Your task to perform on an android device: turn on location history Image 0: 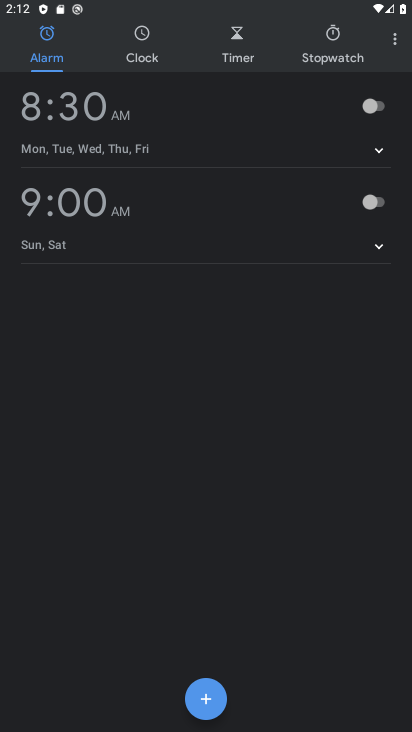
Step 0: press home button
Your task to perform on an android device: turn on location history Image 1: 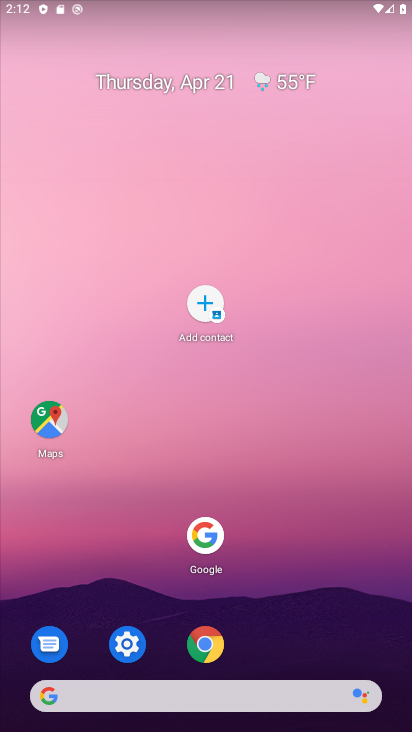
Step 1: drag from (242, 506) to (160, 112)
Your task to perform on an android device: turn on location history Image 2: 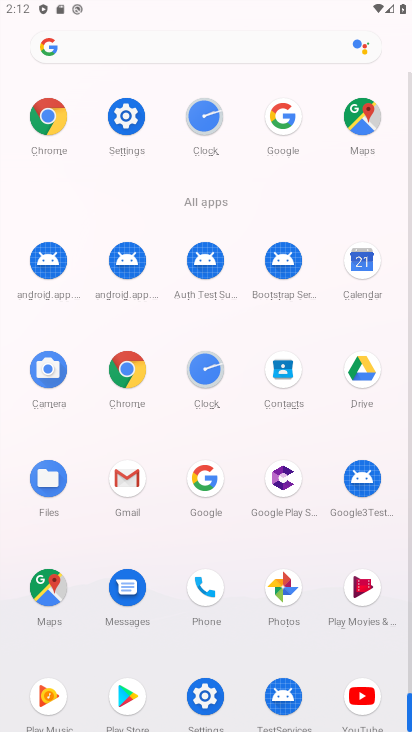
Step 2: click (48, 594)
Your task to perform on an android device: turn on location history Image 3: 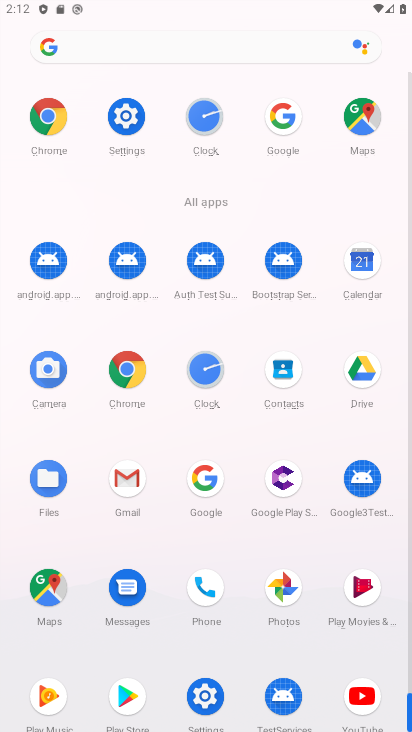
Step 3: click (48, 594)
Your task to perform on an android device: turn on location history Image 4: 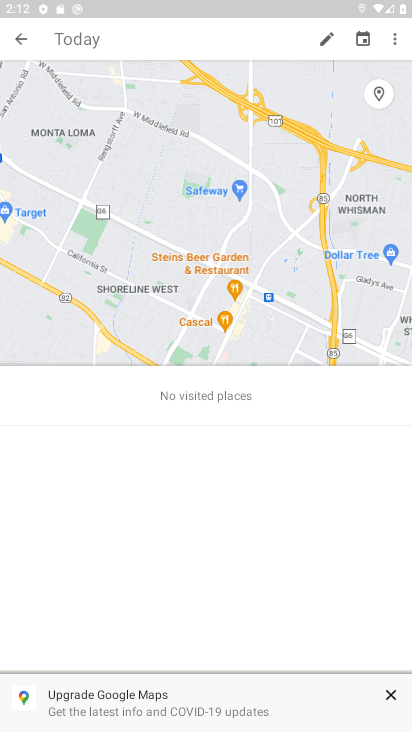
Step 4: click (18, 36)
Your task to perform on an android device: turn on location history Image 5: 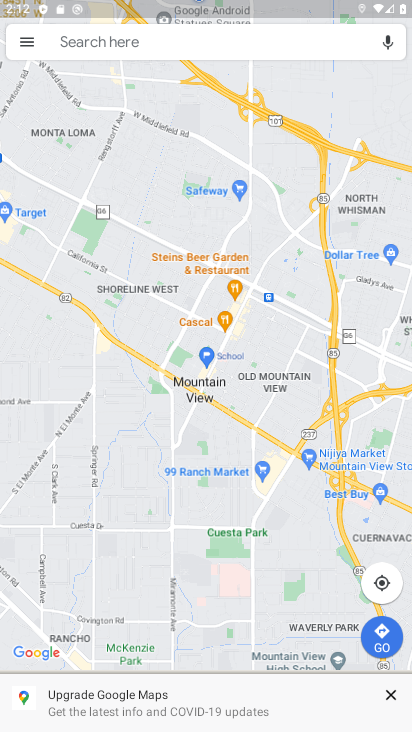
Step 5: click (23, 38)
Your task to perform on an android device: turn on location history Image 6: 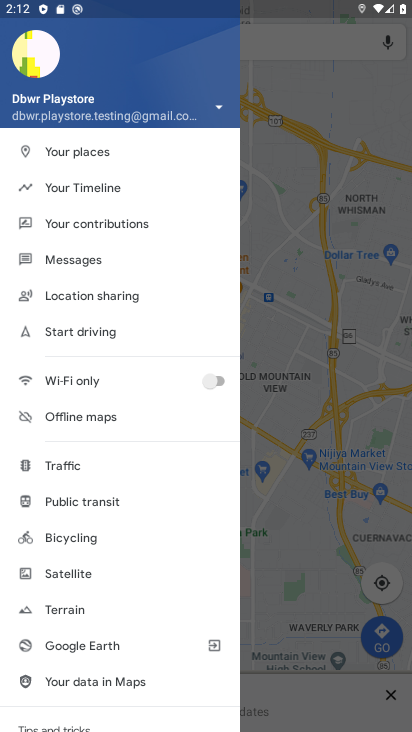
Step 6: click (100, 188)
Your task to perform on an android device: turn on location history Image 7: 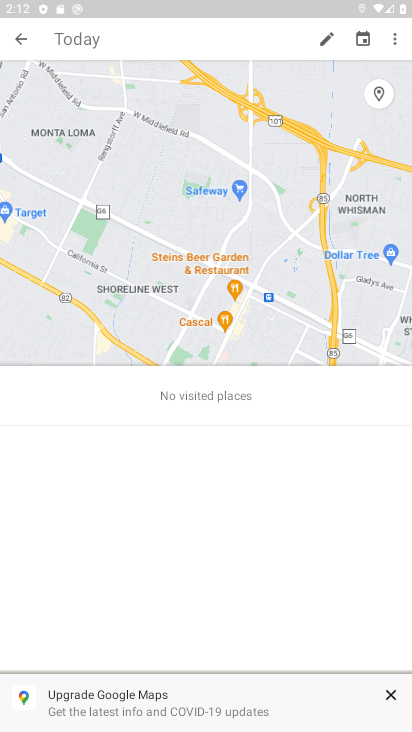
Step 7: click (392, 39)
Your task to perform on an android device: turn on location history Image 8: 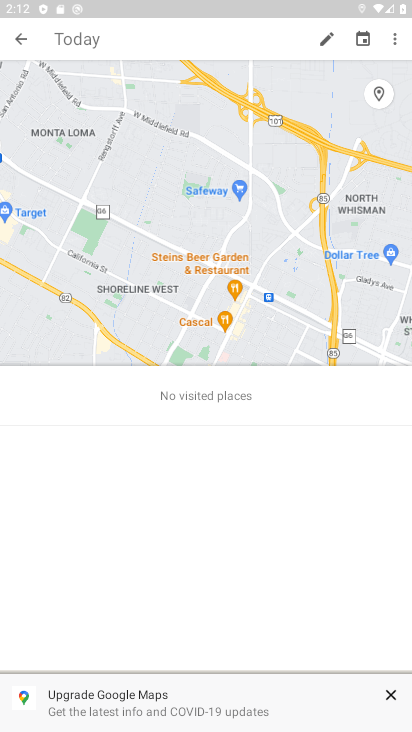
Step 8: click (392, 39)
Your task to perform on an android device: turn on location history Image 9: 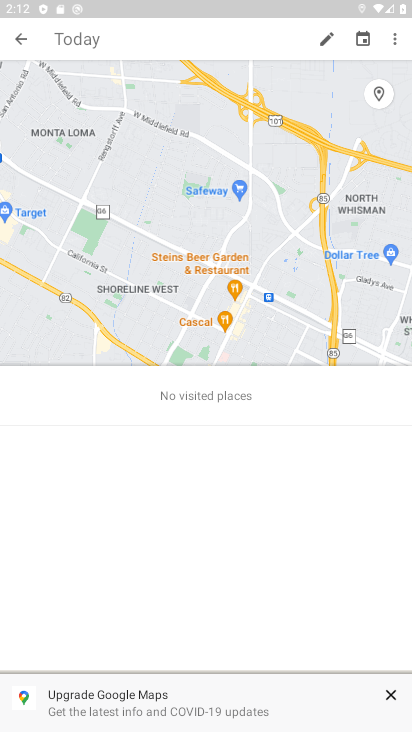
Step 9: drag from (391, 34) to (360, 218)
Your task to perform on an android device: turn on location history Image 10: 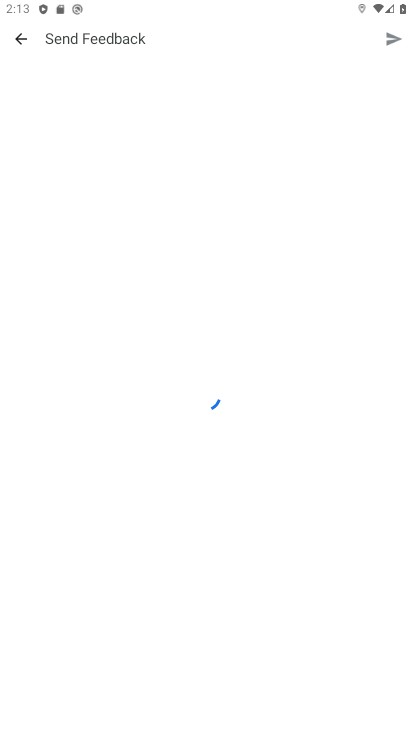
Step 10: click (393, 39)
Your task to perform on an android device: turn on location history Image 11: 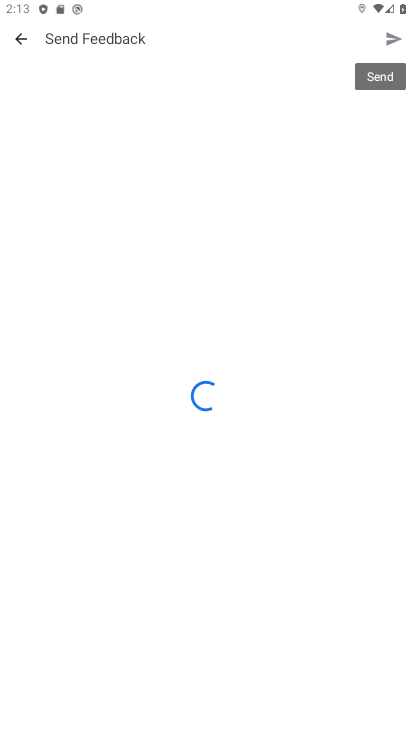
Step 11: click (16, 32)
Your task to perform on an android device: turn on location history Image 12: 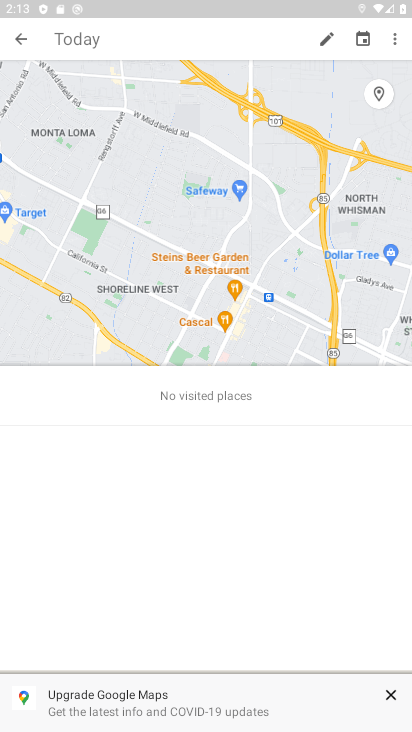
Step 12: drag from (391, 42) to (376, 315)
Your task to perform on an android device: turn on location history Image 13: 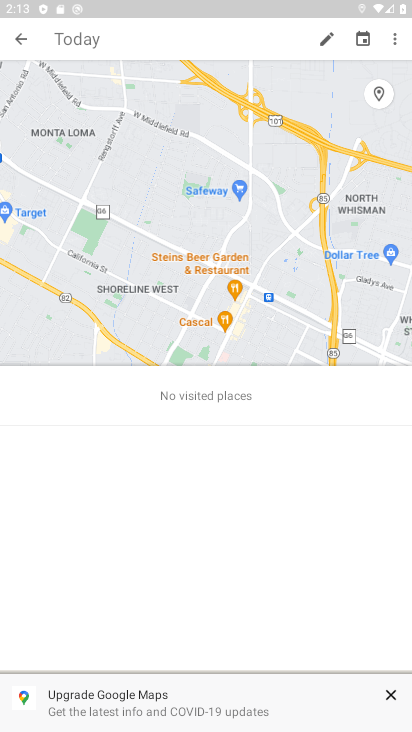
Step 13: click (393, 37)
Your task to perform on an android device: turn on location history Image 14: 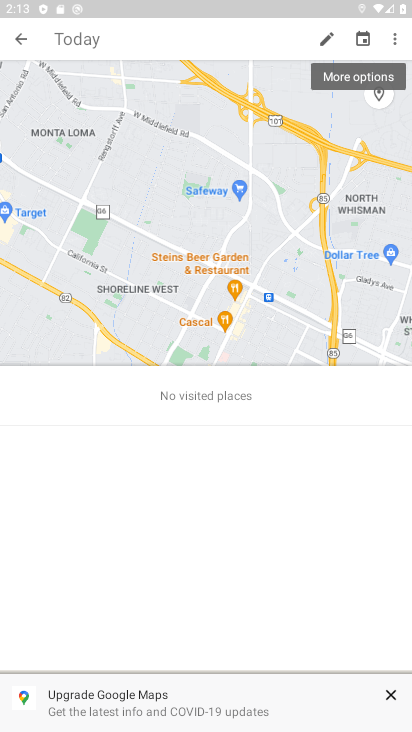
Step 14: click (391, 37)
Your task to perform on an android device: turn on location history Image 15: 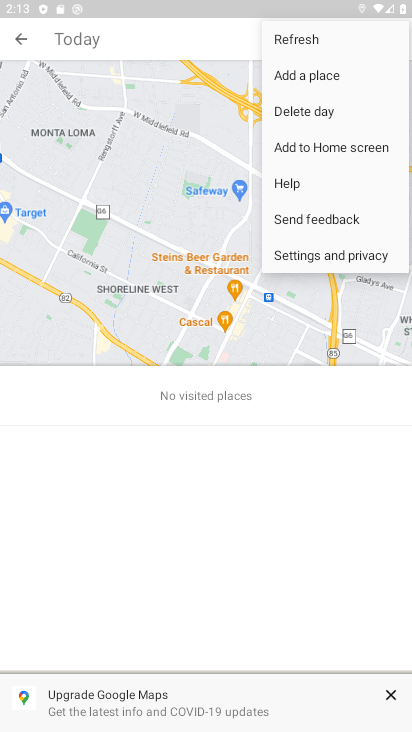
Step 15: click (328, 251)
Your task to perform on an android device: turn on location history Image 16: 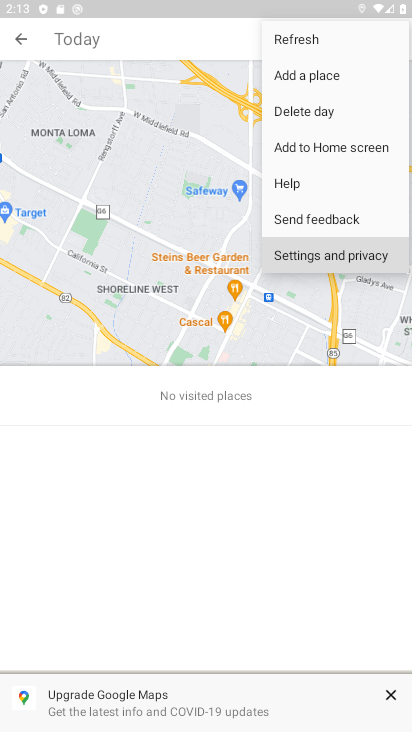
Step 16: click (327, 252)
Your task to perform on an android device: turn on location history Image 17: 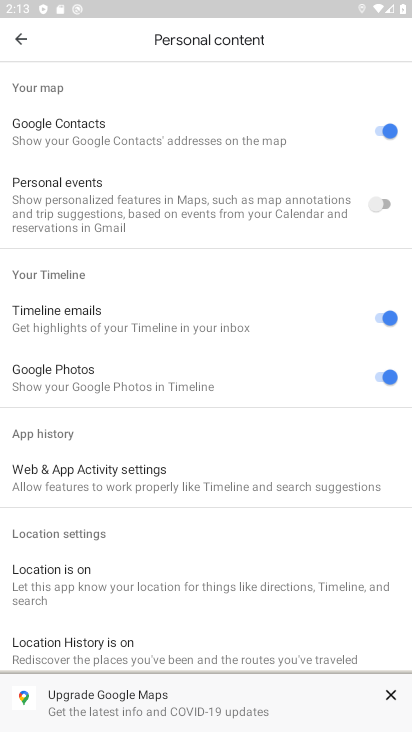
Step 17: drag from (147, 602) to (116, 219)
Your task to perform on an android device: turn on location history Image 18: 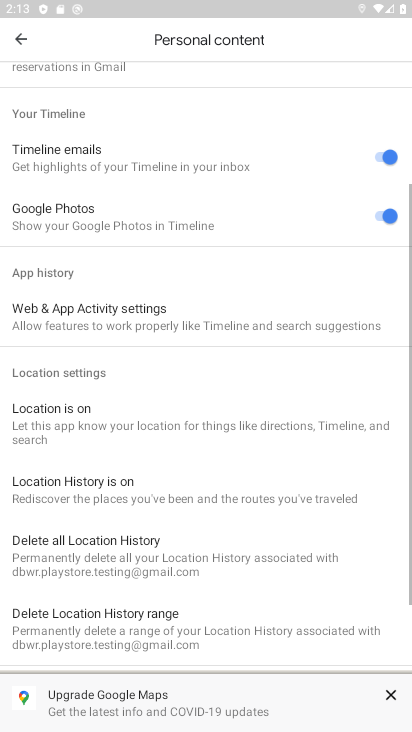
Step 18: drag from (278, 433) to (284, 254)
Your task to perform on an android device: turn on location history Image 19: 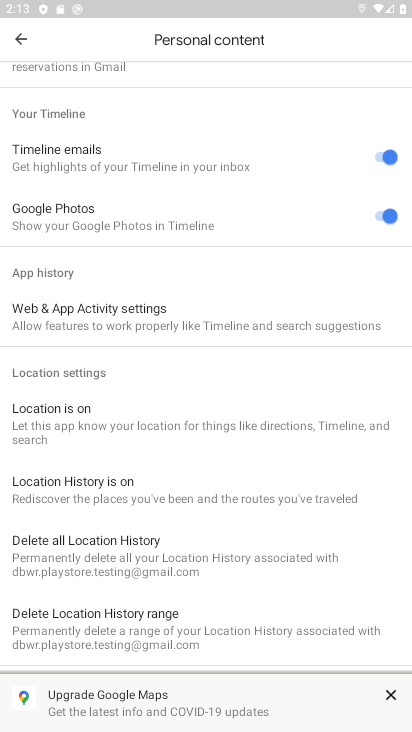
Step 19: click (100, 492)
Your task to perform on an android device: turn on location history Image 20: 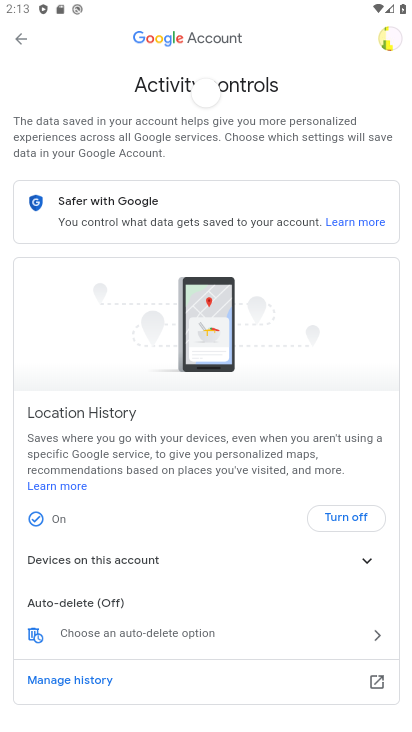
Step 20: task complete